Your task to perform on an android device: turn pop-ups on in chrome Image 0: 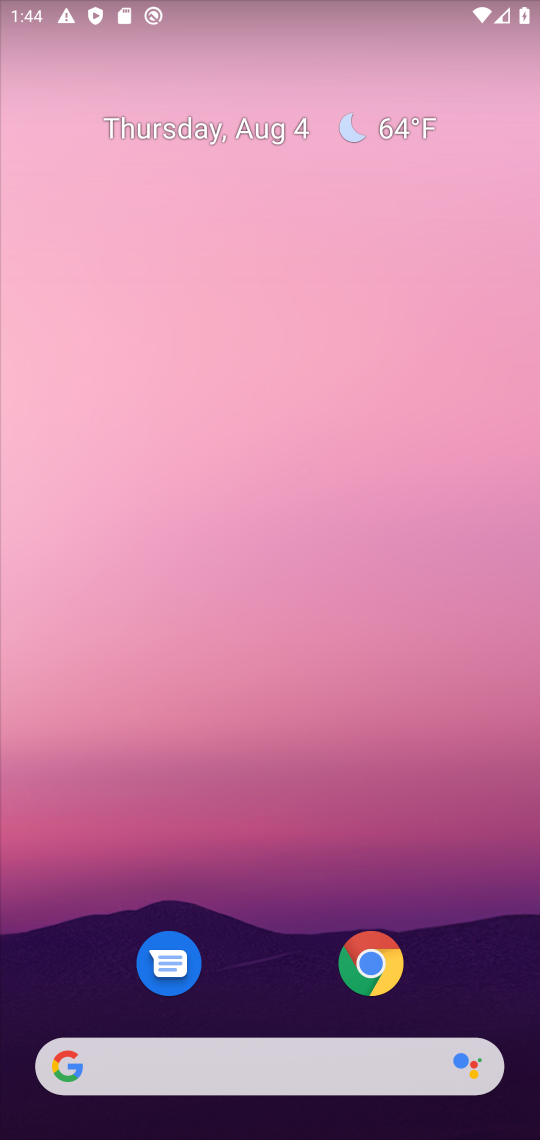
Step 0: click (383, 979)
Your task to perform on an android device: turn pop-ups on in chrome Image 1: 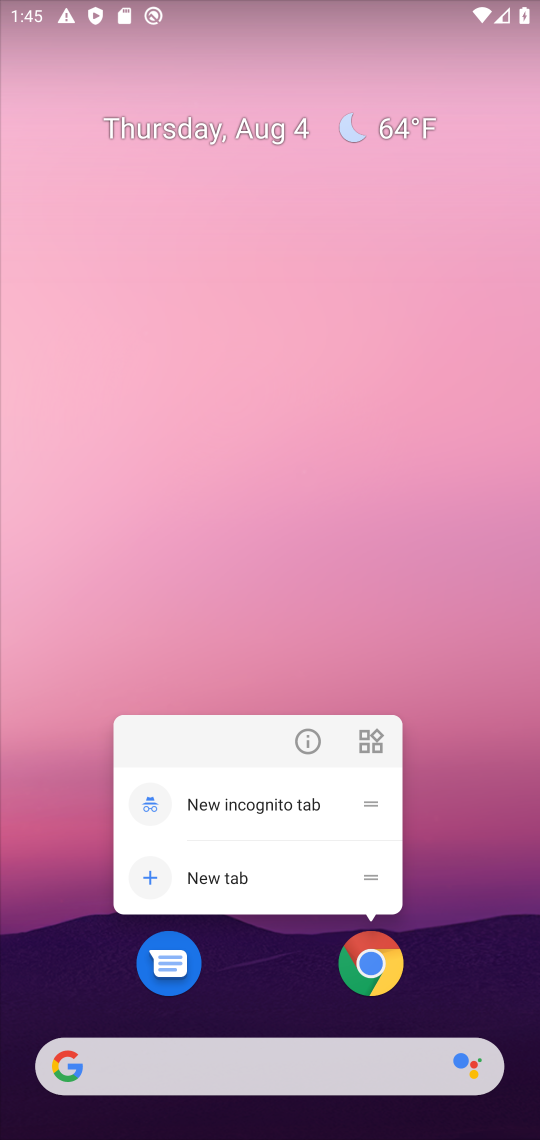
Step 1: click (383, 979)
Your task to perform on an android device: turn pop-ups on in chrome Image 2: 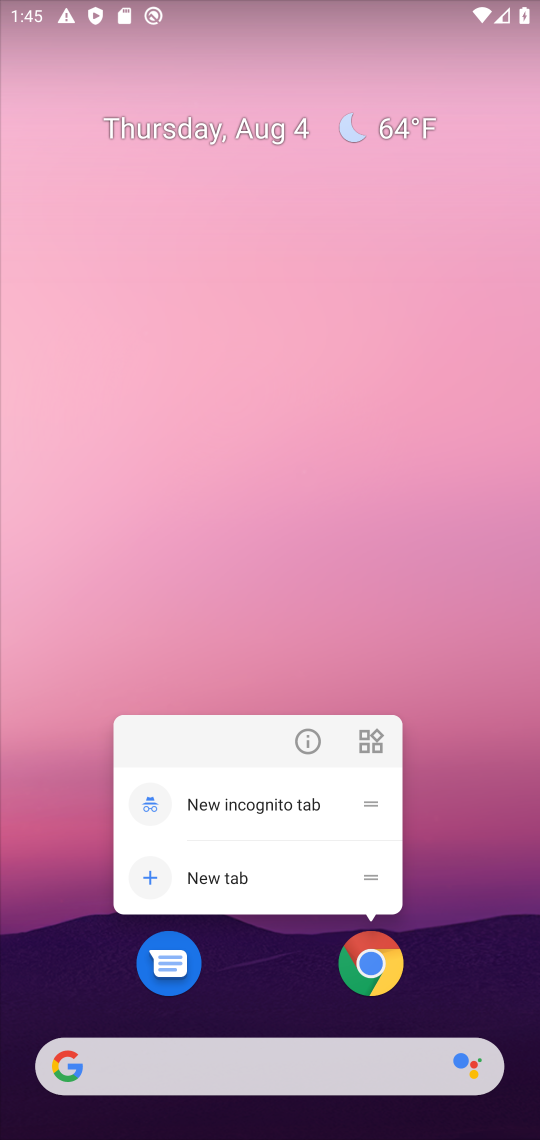
Step 2: click (383, 979)
Your task to perform on an android device: turn pop-ups on in chrome Image 3: 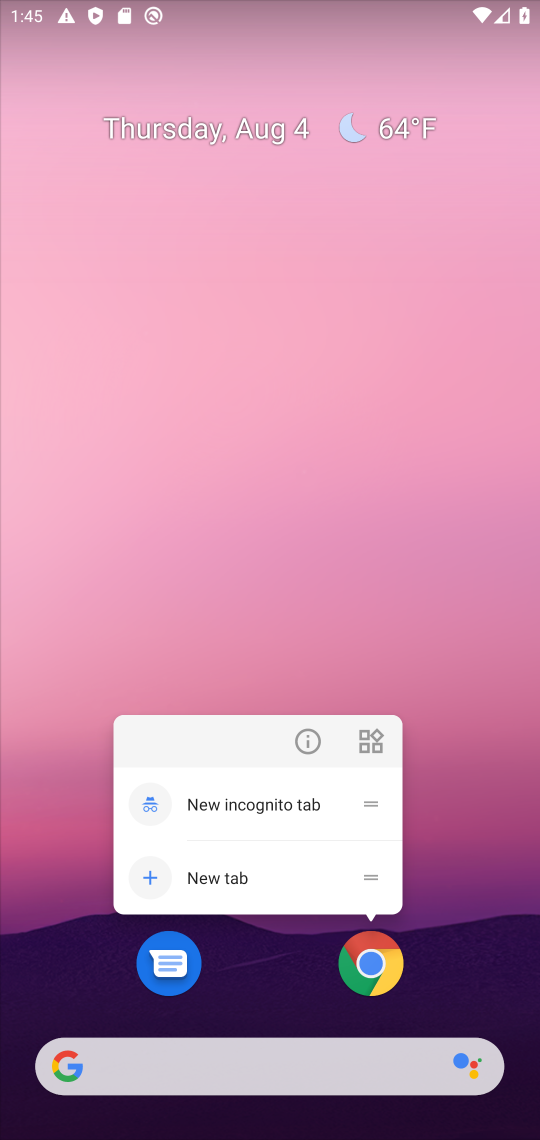
Step 3: click (383, 979)
Your task to perform on an android device: turn pop-ups on in chrome Image 4: 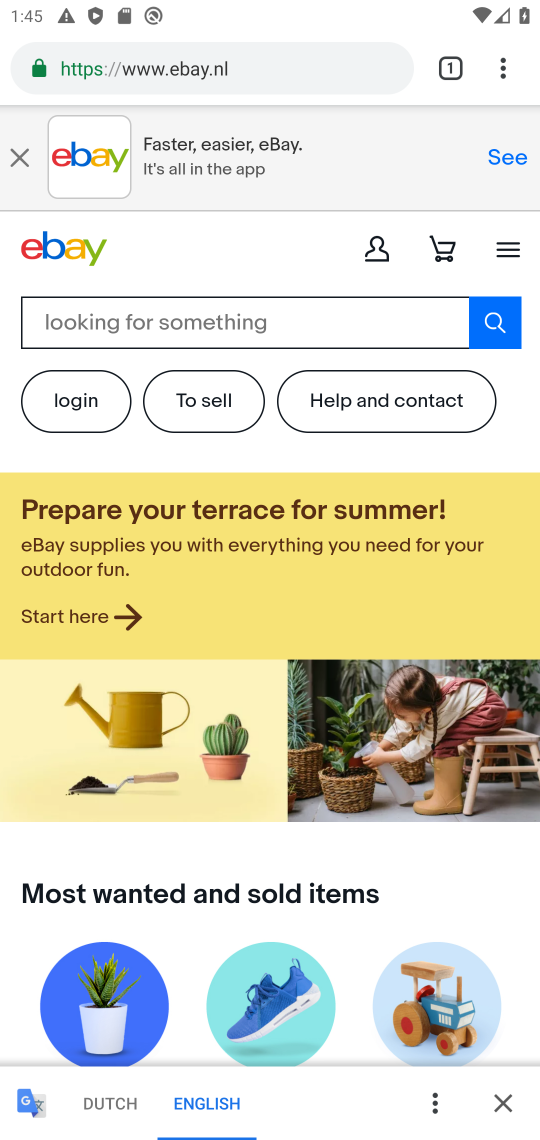
Step 4: drag from (516, 74) to (236, 872)
Your task to perform on an android device: turn pop-ups on in chrome Image 5: 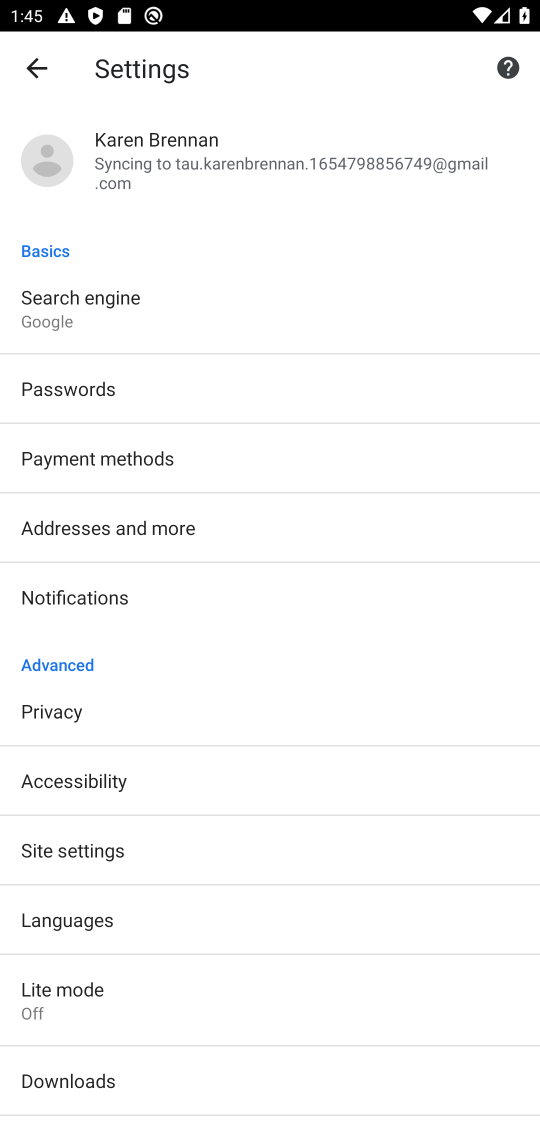
Step 5: click (101, 862)
Your task to perform on an android device: turn pop-ups on in chrome Image 6: 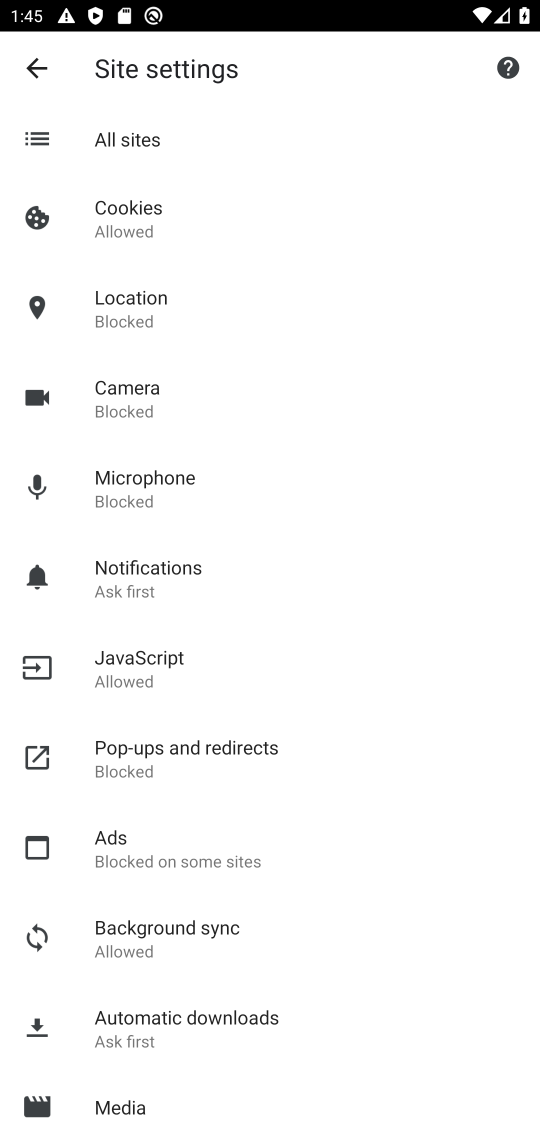
Step 6: click (203, 748)
Your task to perform on an android device: turn pop-ups on in chrome Image 7: 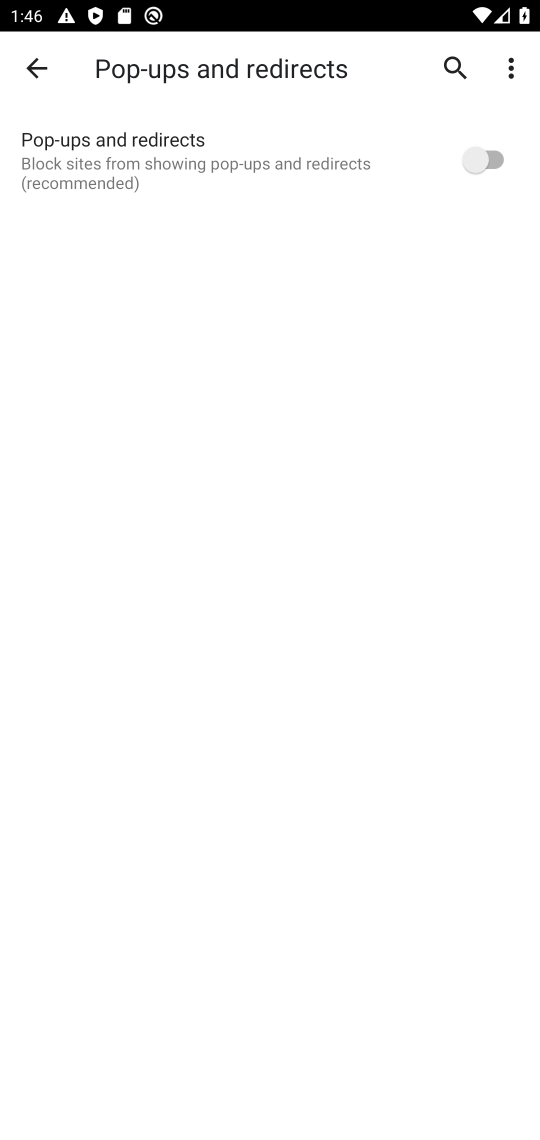
Step 7: click (492, 151)
Your task to perform on an android device: turn pop-ups on in chrome Image 8: 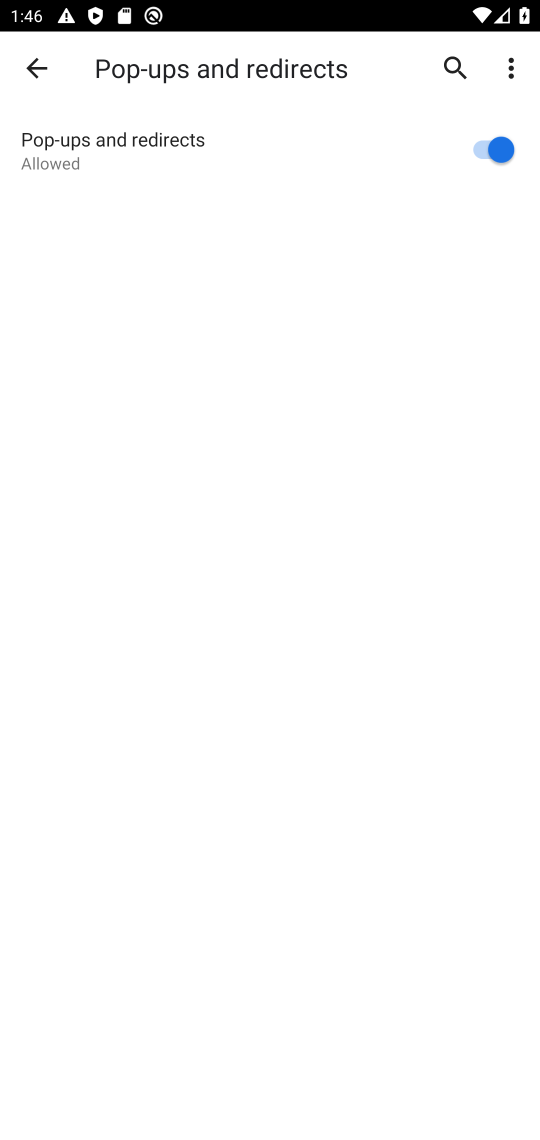
Step 8: task complete